Your task to perform on an android device: set an alarm Image 0: 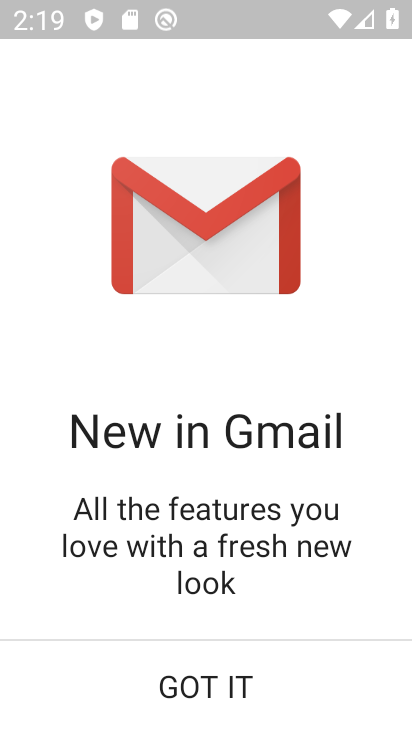
Step 0: drag from (377, 578) to (381, 272)
Your task to perform on an android device: set an alarm Image 1: 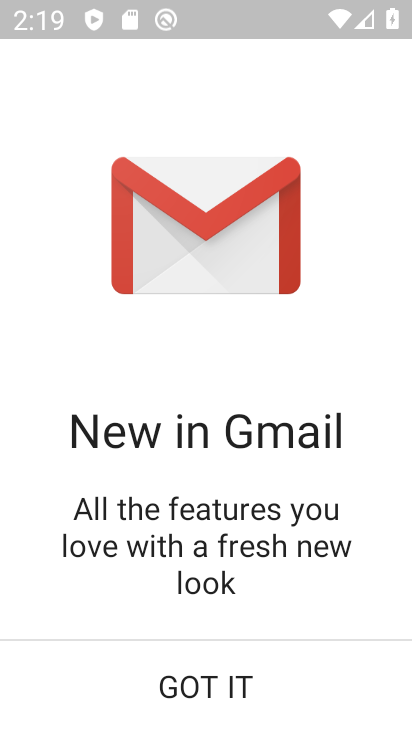
Step 1: press home button
Your task to perform on an android device: set an alarm Image 2: 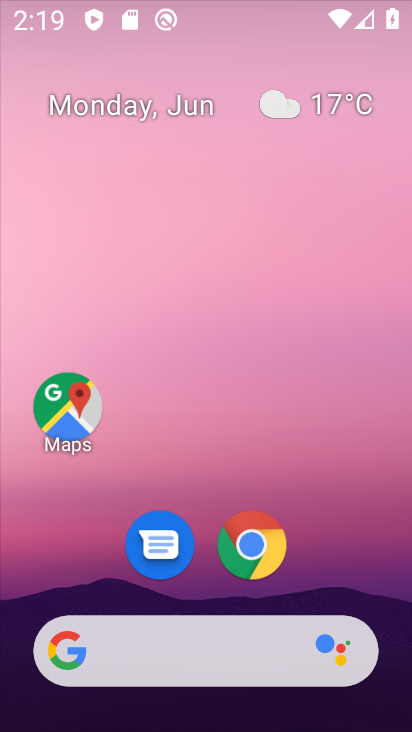
Step 2: drag from (367, 570) to (337, 145)
Your task to perform on an android device: set an alarm Image 3: 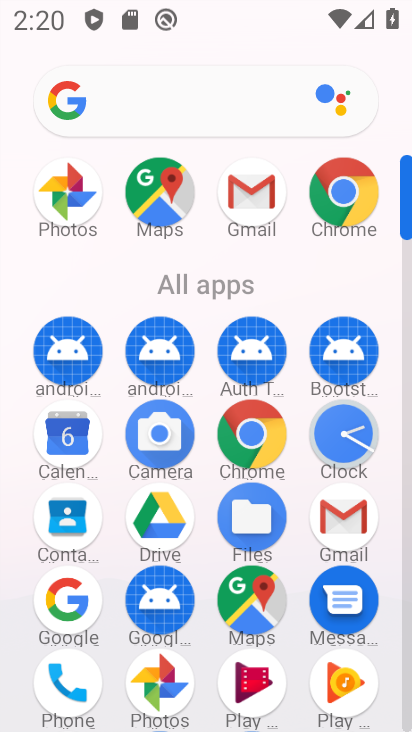
Step 3: click (334, 445)
Your task to perform on an android device: set an alarm Image 4: 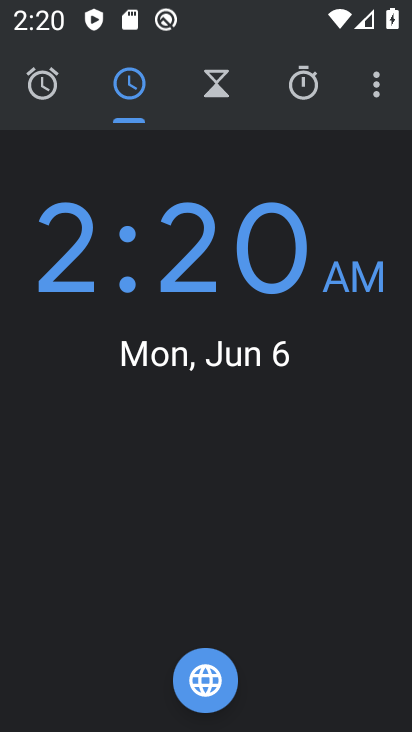
Step 4: click (58, 89)
Your task to perform on an android device: set an alarm Image 5: 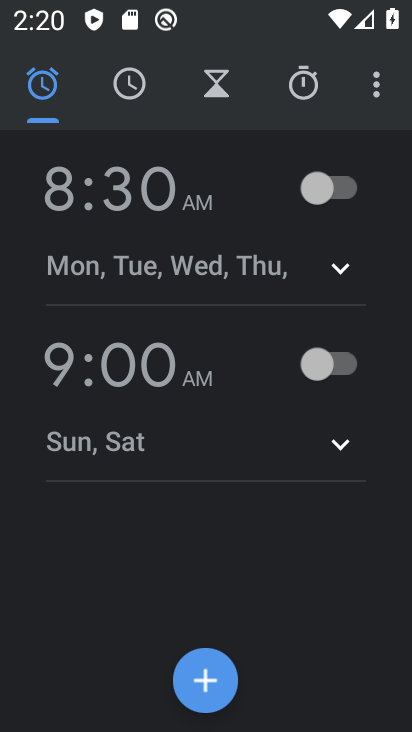
Step 5: click (197, 692)
Your task to perform on an android device: set an alarm Image 6: 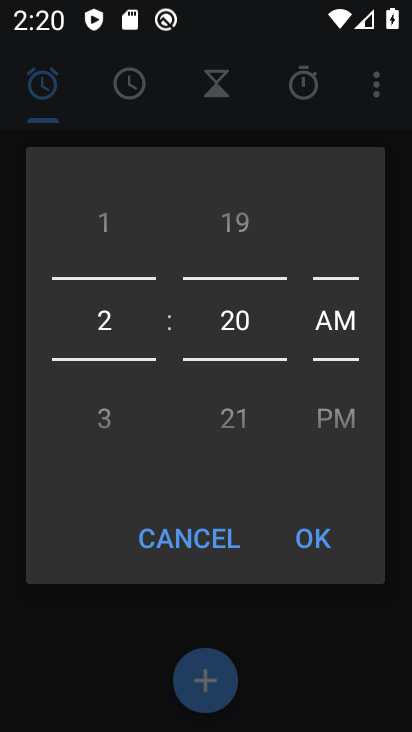
Step 6: click (325, 544)
Your task to perform on an android device: set an alarm Image 7: 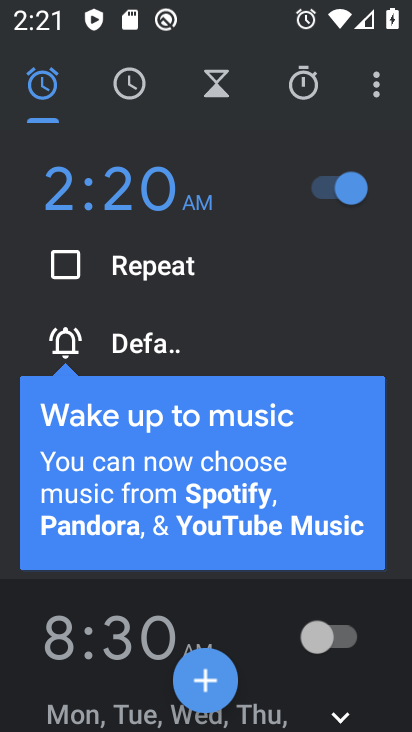
Step 7: task complete